Your task to perform on an android device: manage bookmarks in the chrome app Image 0: 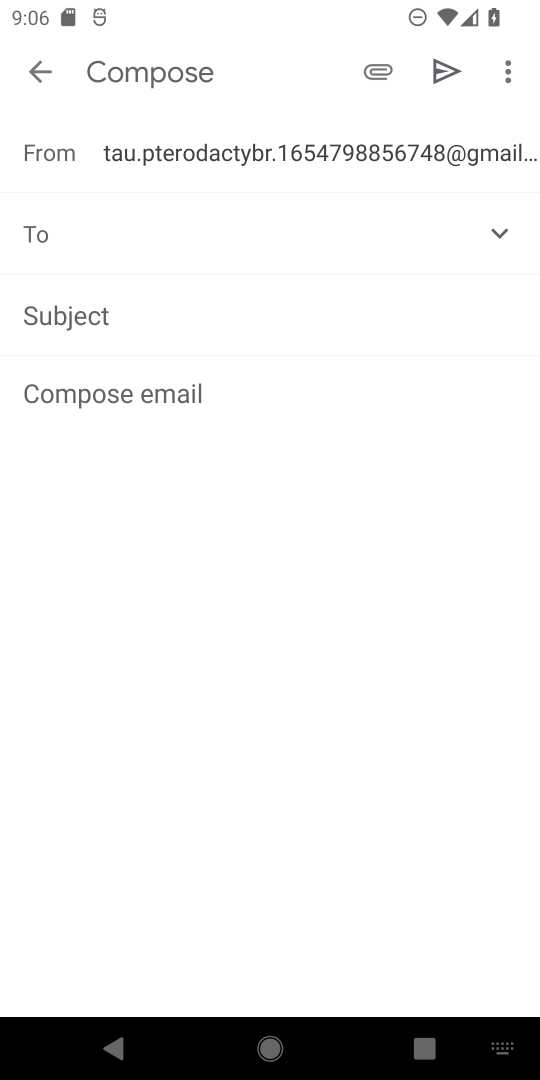
Step 0: press home button
Your task to perform on an android device: manage bookmarks in the chrome app Image 1: 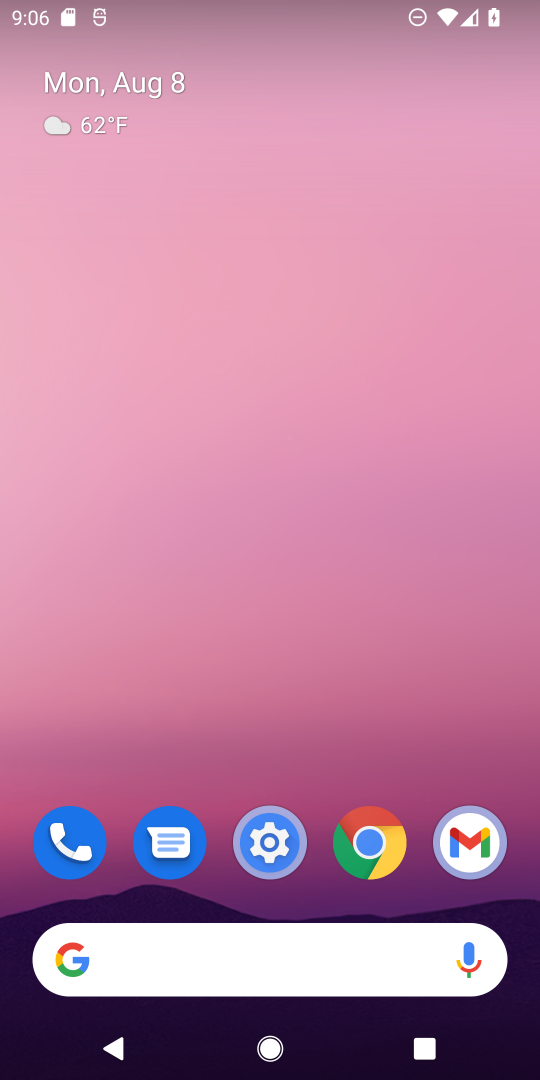
Step 1: click (374, 847)
Your task to perform on an android device: manage bookmarks in the chrome app Image 2: 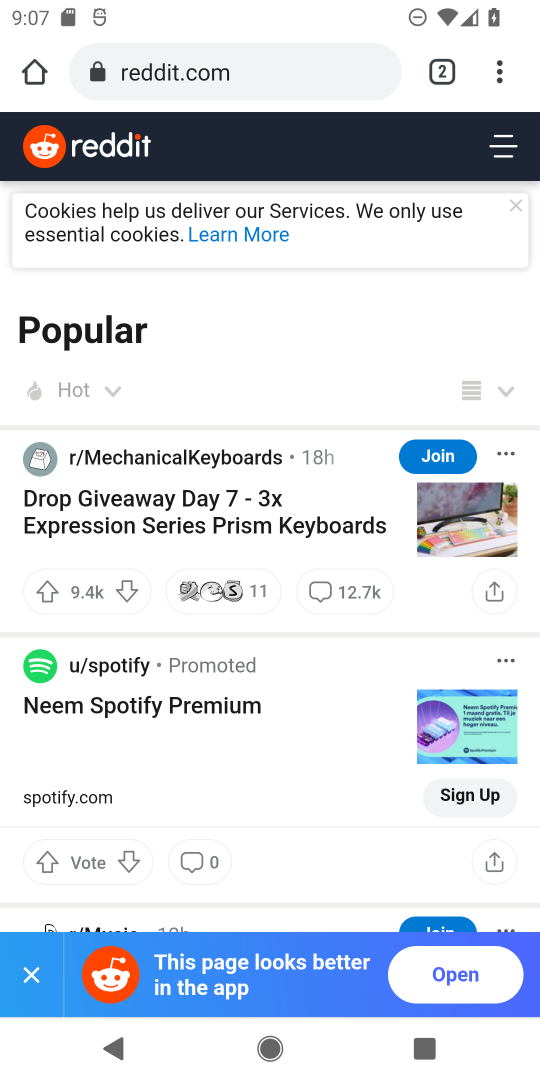
Step 2: click (498, 68)
Your task to perform on an android device: manage bookmarks in the chrome app Image 3: 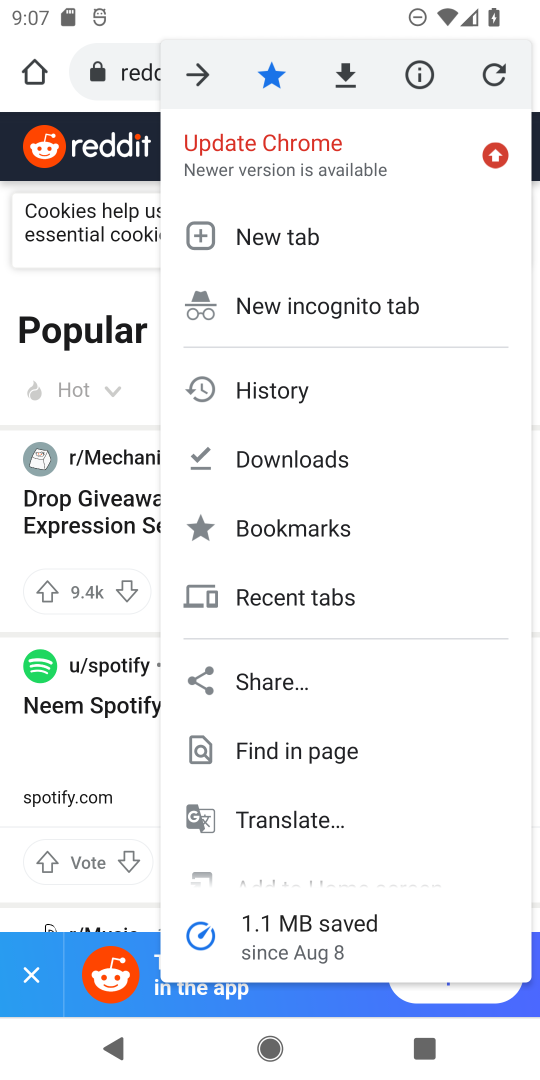
Step 3: click (332, 531)
Your task to perform on an android device: manage bookmarks in the chrome app Image 4: 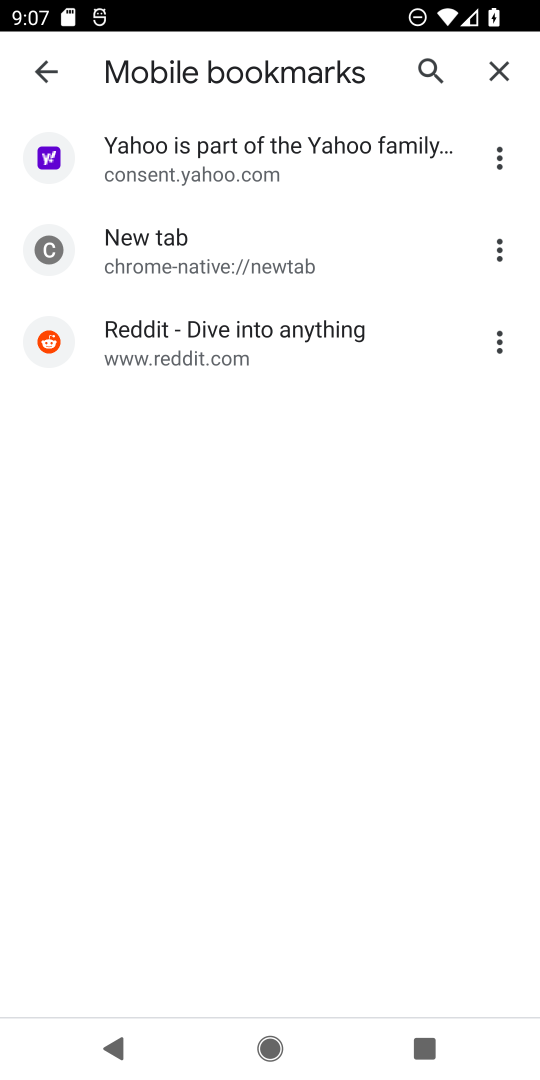
Step 4: click (501, 342)
Your task to perform on an android device: manage bookmarks in the chrome app Image 5: 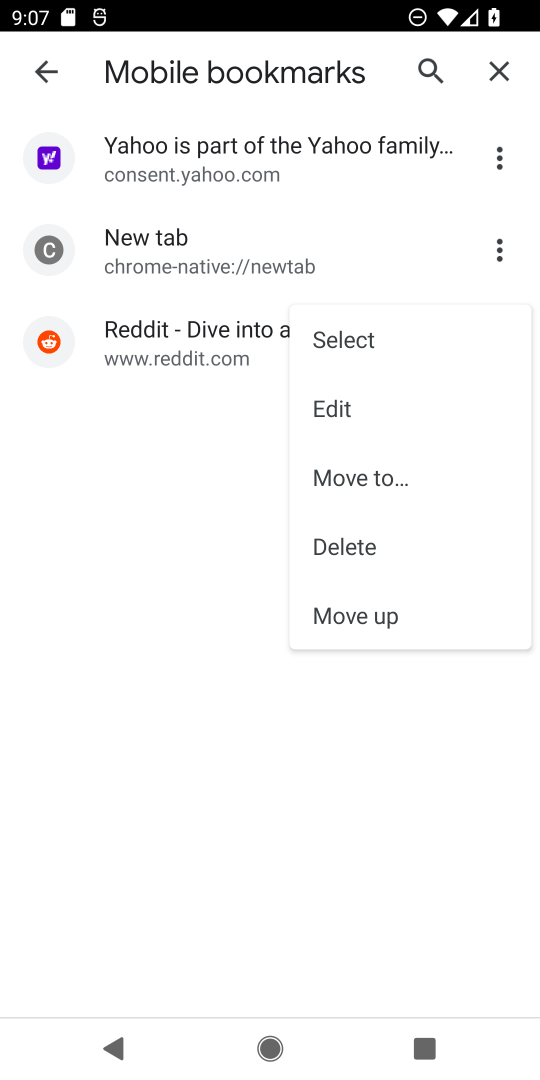
Step 5: click (348, 407)
Your task to perform on an android device: manage bookmarks in the chrome app Image 6: 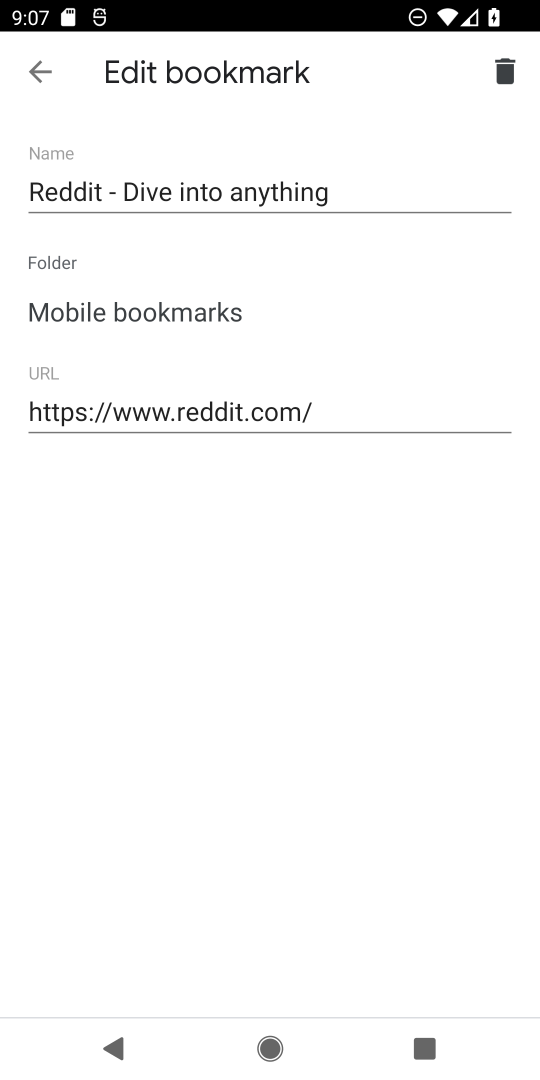
Step 6: task complete